Your task to perform on an android device: Search for Italian restaurants on Maps Image 0: 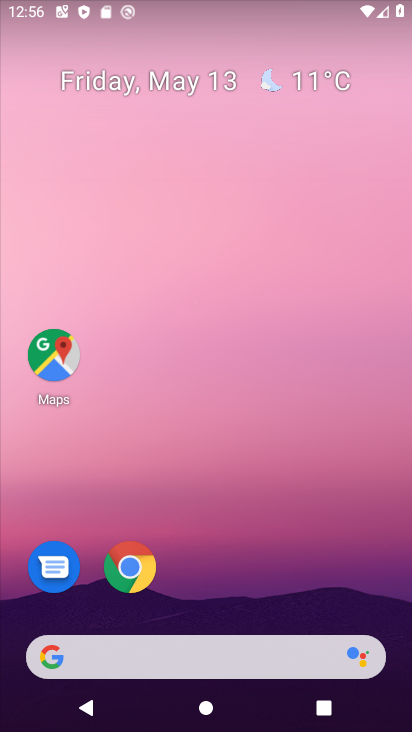
Step 0: click (74, 362)
Your task to perform on an android device: Search for Italian restaurants on Maps Image 1: 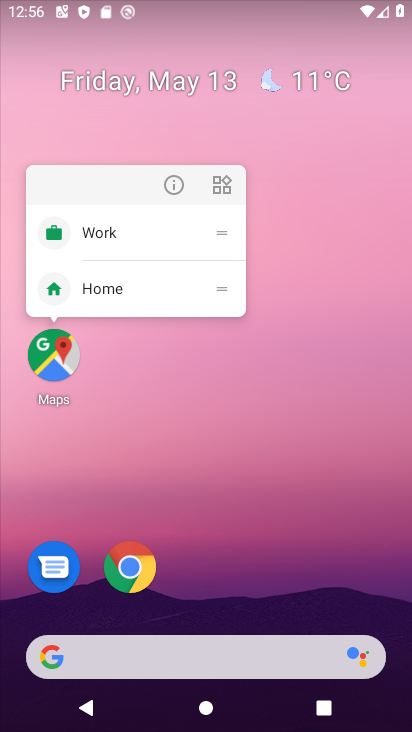
Step 1: click (74, 362)
Your task to perform on an android device: Search for Italian restaurants on Maps Image 2: 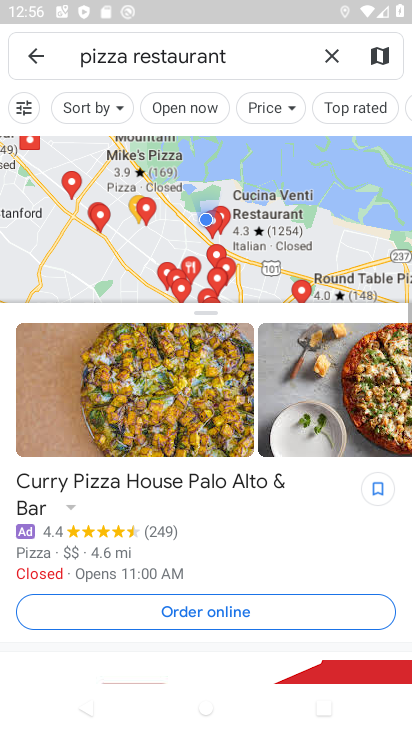
Step 2: click (323, 55)
Your task to perform on an android device: Search for Italian restaurants on Maps Image 3: 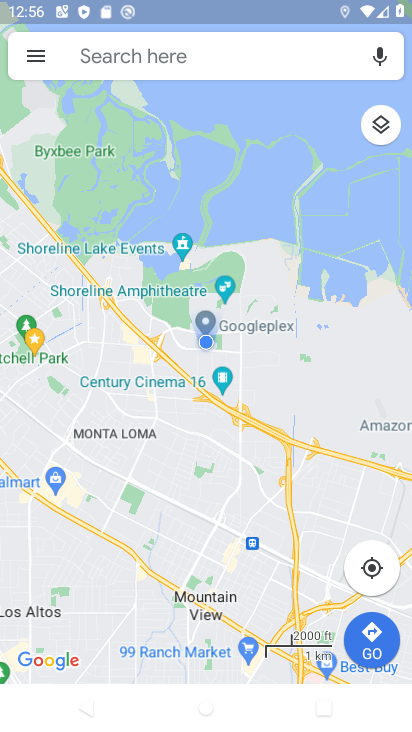
Step 3: click (219, 56)
Your task to perform on an android device: Search for Italian restaurants on Maps Image 4: 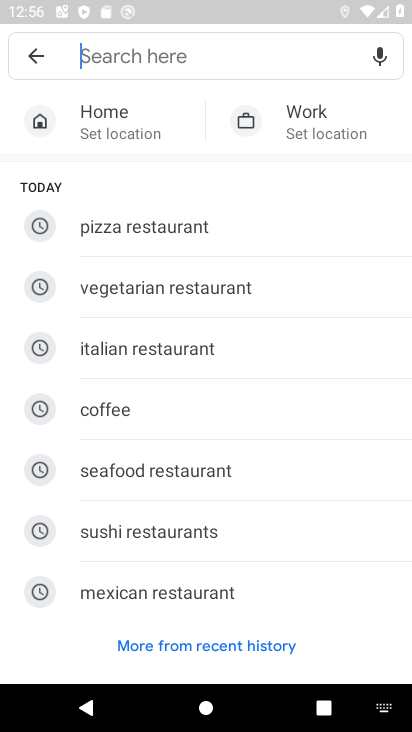
Step 4: type "Italian restaurants"
Your task to perform on an android device: Search for Italian restaurants on Maps Image 5: 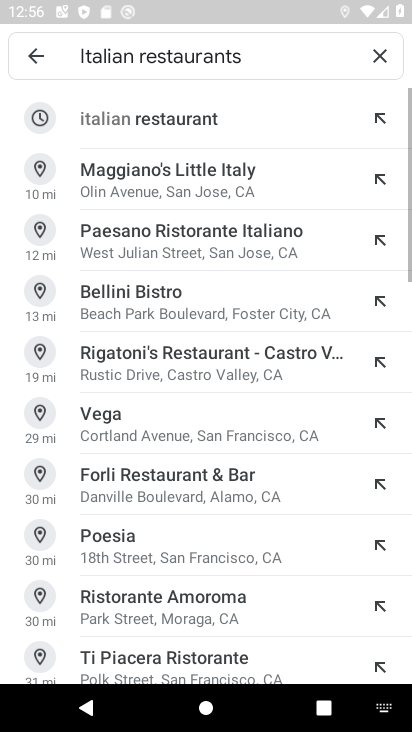
Step 5: click (212, 119)
Your task to perform on an android device: Search for Italian restaurants on Maps Image 6: 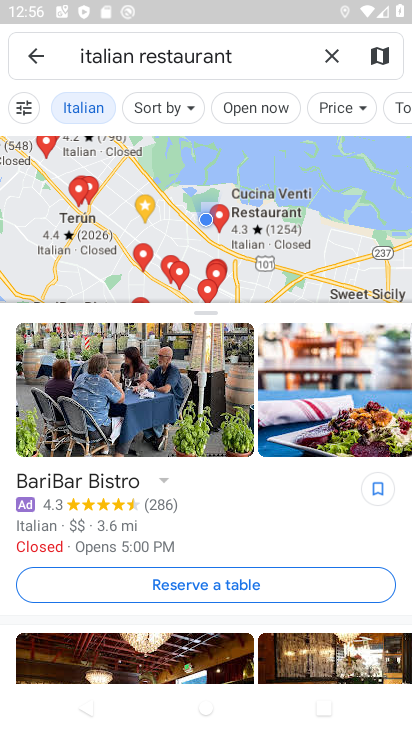
Step 6: task complete